Your task to perform on an android device: allow cookies in the chrome app Image 0: 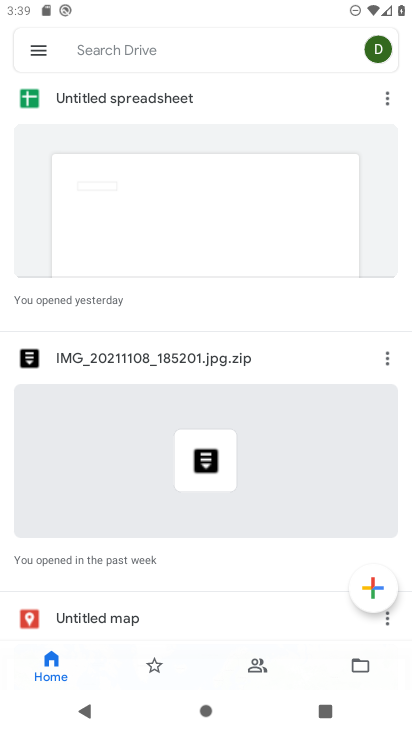
Step 0: press home button
Your task to perform on an android device: allow cookies in the chrome app Image 1: 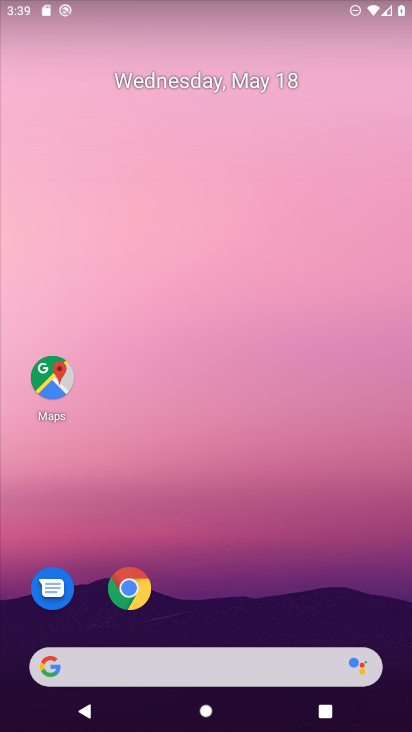
Step 1: click (131, 601)
Your task to perform on an android device: allow cookies in the chrome app Image 2: 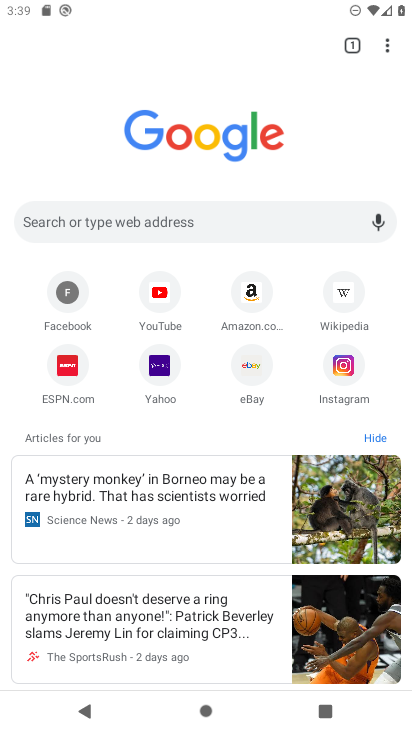
Step 2: click (394, 48)
Your task to perform on an android device: allow cookies in the chrome app Image 3: 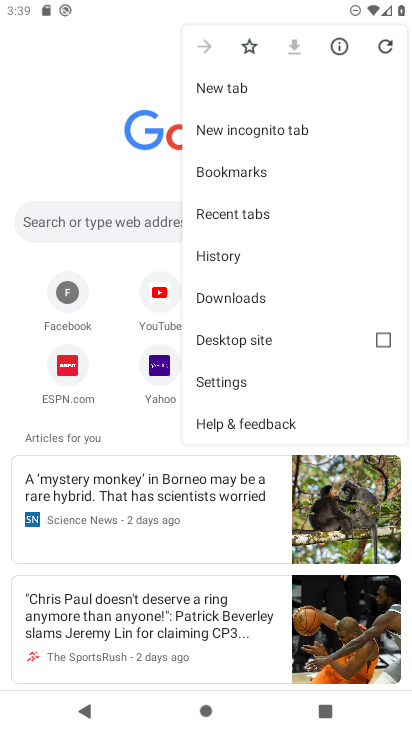
Step 3: click (261, 360)
Your task to perform on an android device: allow cookies in the chrome app Image 4: 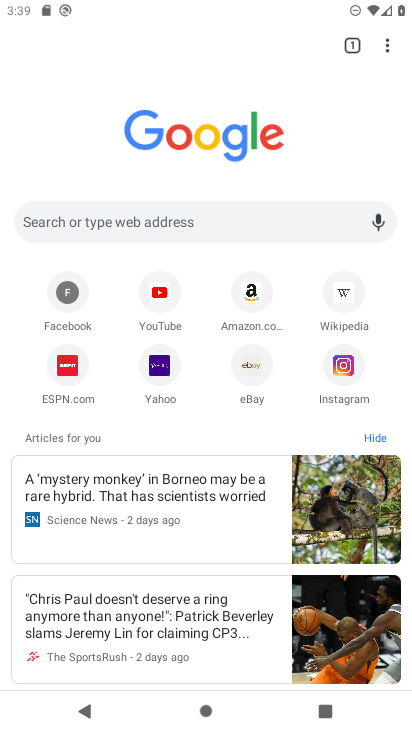
Step 4: click (251, 386)
Your task to perform on an android device: allow cookies in the chrome app Image 5: 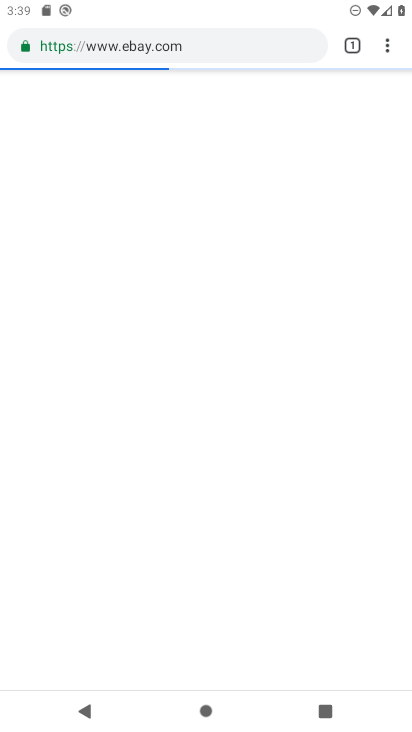
Step 5: click (392, 59)
Your task to perform on an android device: allow cookies in the chrome app Image 6: 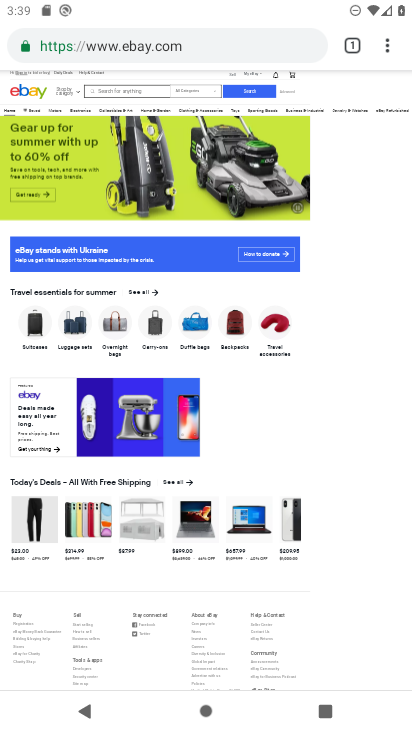
Step 6: click (386, 52)
Your task to perform on an android device: allow cookies in the chrome app Image 7: 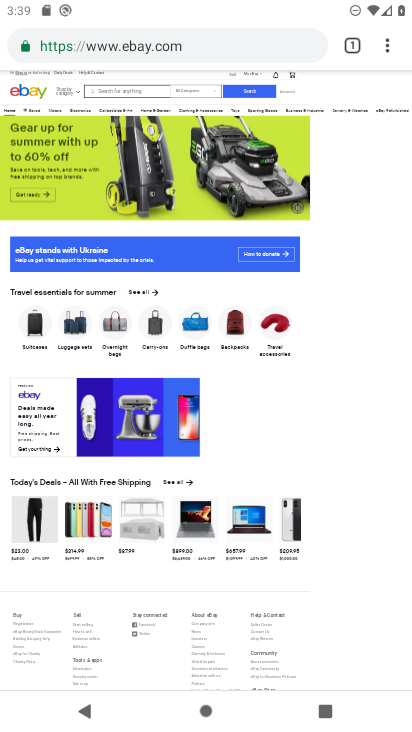
Step 7: click (385, 57)
Your task to perform on an android device: allow cookies in the chrome app Image 8: 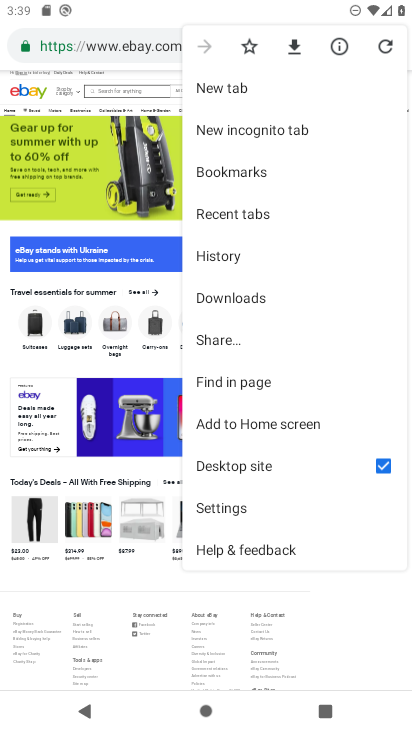
Step 8: click (241, 517)
Your task to perform on an android device: allow cookies in the chrome app Image 9: 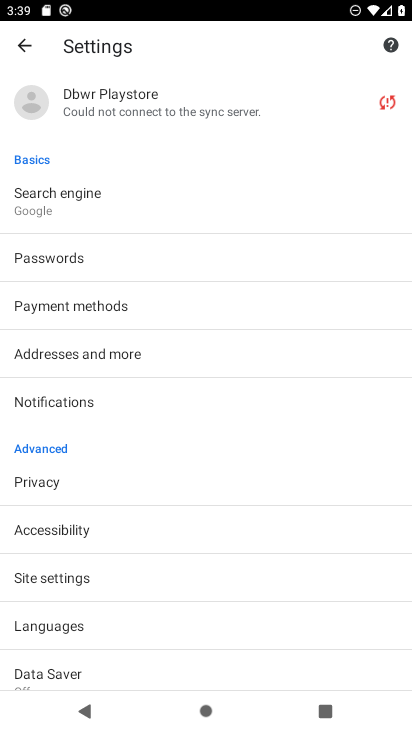
Step 9: click (145, 576)
Your task to perform on an android device: allow cookies in the chrome app Image 10: 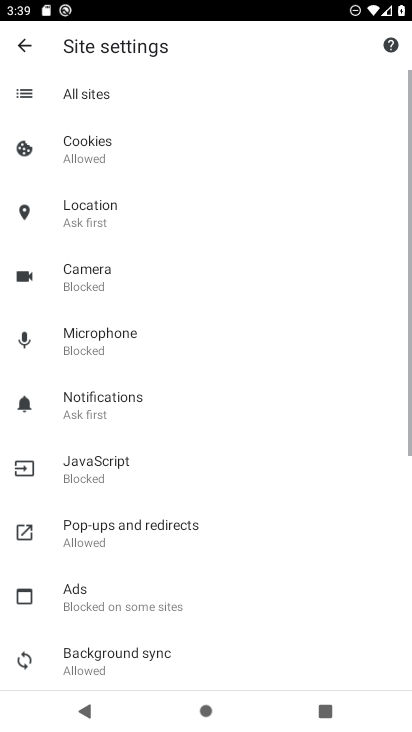
Step 10: click (276, 150)
Your task to perform on an android device: allow cookies in the chrome app Image 11: 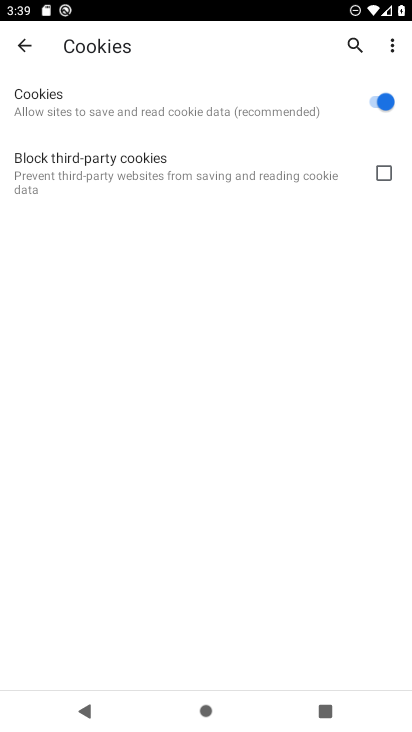
Step 11: task complete